Your task to perform on an android device: delete a single message in the gmail app Image 0: 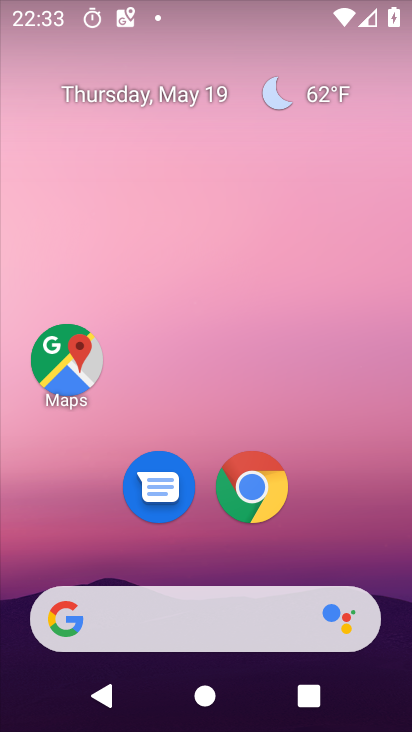
Step 0: drag from (322, 546) to (272, 209)
Your task to perform on an android device: delete a single message in the gmail app Image 1: 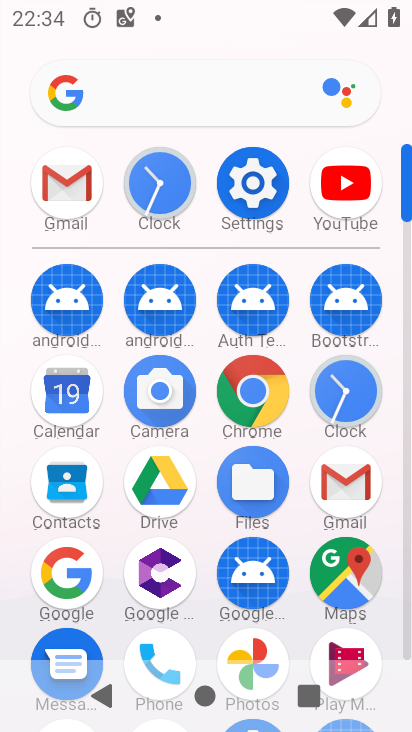
Step 1: click (62, 189)
Your task to perform on an android device: delete a single message in the gmail app Image 2: 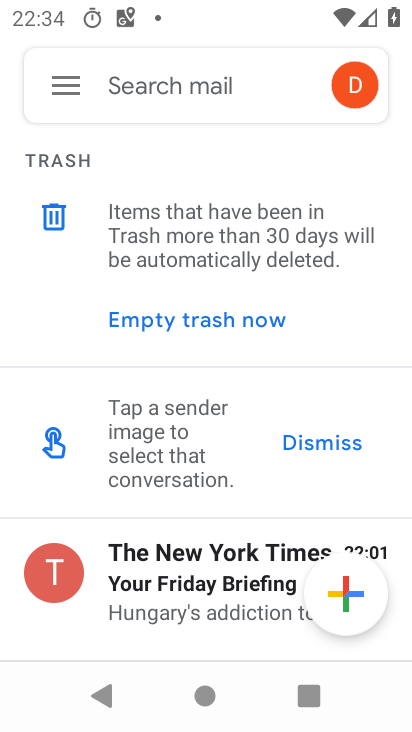
Step 2: click (70, 84)
Your task to perform on an android device: delete a single message in the gmail app Image 3: 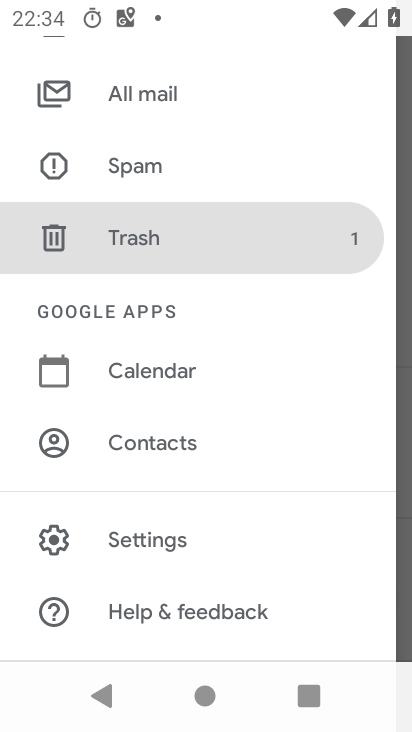
Step 3: drag from (302, 132) to (274, 653)
Your task to perform on an android device: delete a single message in the gmail app Image 4: 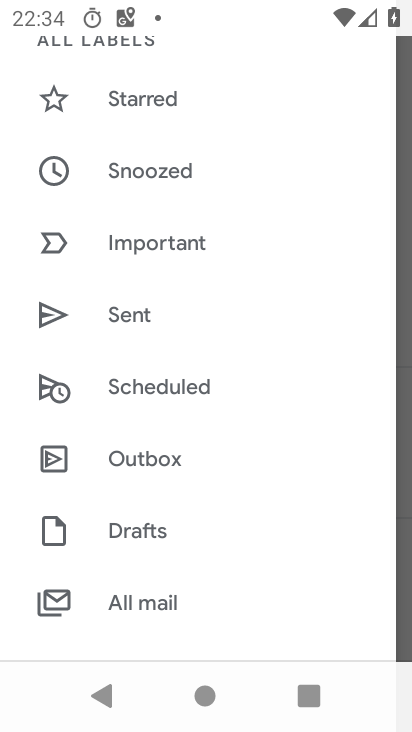
Step 4: click (164, 593)
Your task to perform on an android device: delete a single message in the gmail app Image 5: 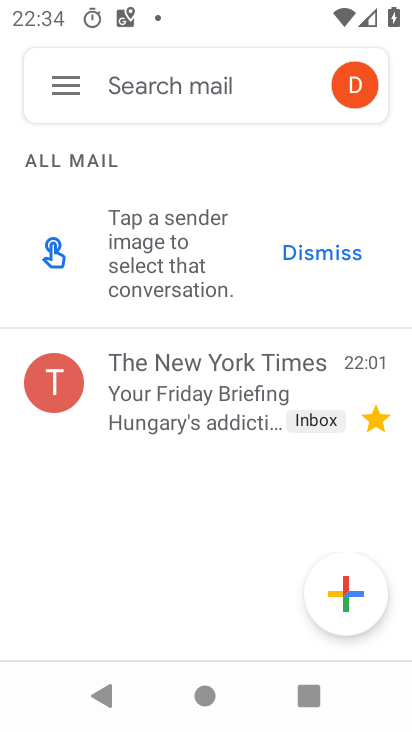
Step 5: click (62, 377)
Your task to perform on an android device: delete a single message in the gmail app Image 6: 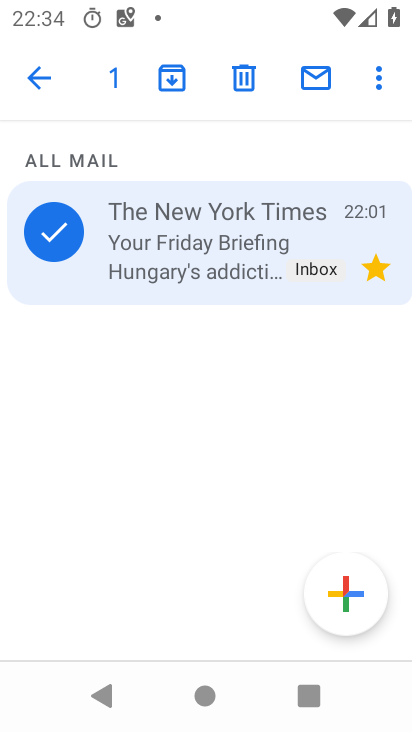
Step 6: click (245, 74)
Your task to perform on an android device: delete a single message in the gmail app Image 7: 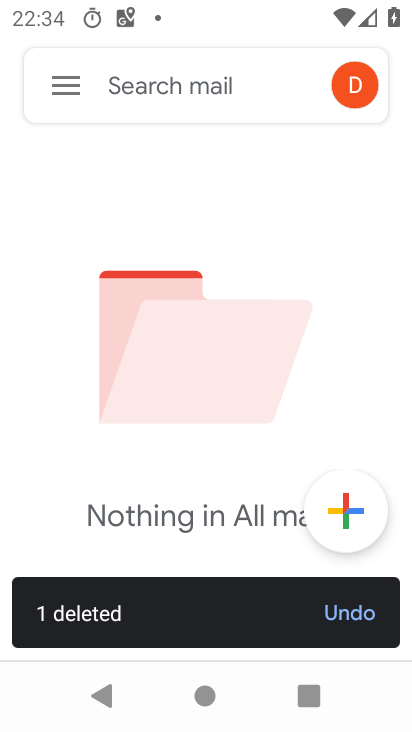
Step 7: task complete